Your task to perform on an android device: change the clock display to analog Image 0: 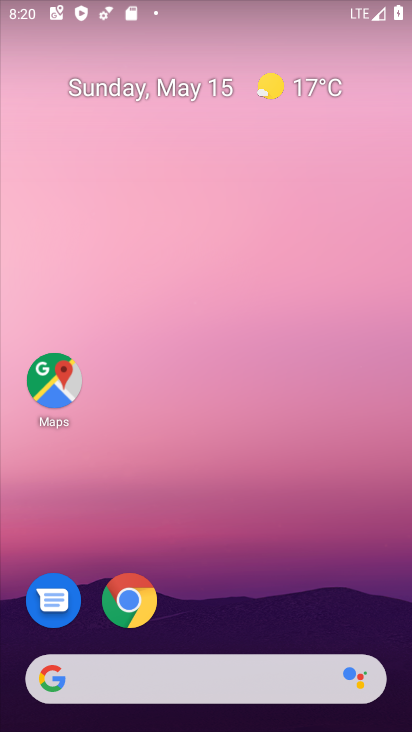
Step 0: drag from (256, 609) to (217, 154)
Your task to perform on an android device: change the clock display to analog Image 1: 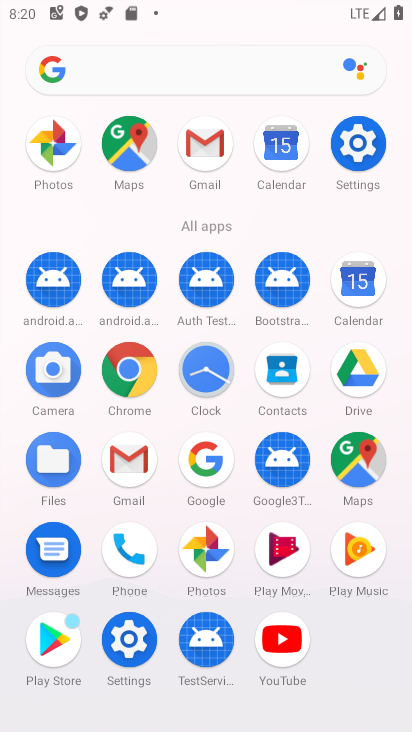
Step 1: click (206, 368)
Your task to perform on an android device: change the clock display to analog Image 2: 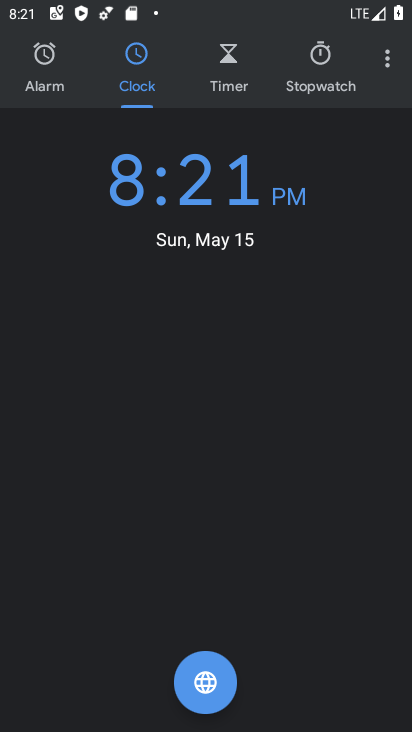
Step 2: click (389, 60)
Your task to perform on an android device: change the clock display to analog Image 3: 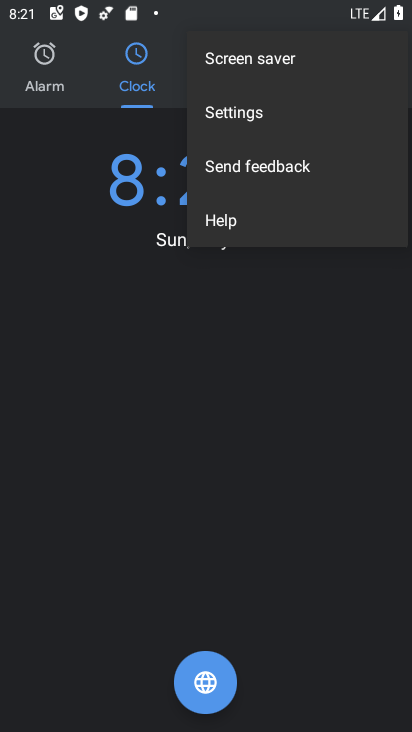
Step 3: click (249, 111)
Your task to perform on an android device: change the clock display to analog Image 4: 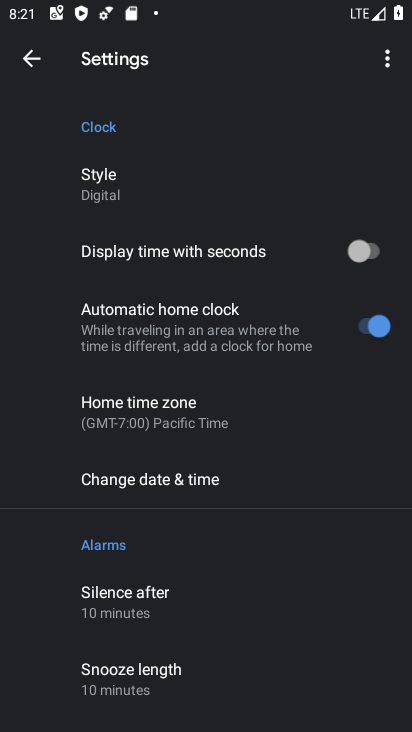
Step 4: click (108, 186)
Your task to perform on an android device: change the clock display to analog Image 5: 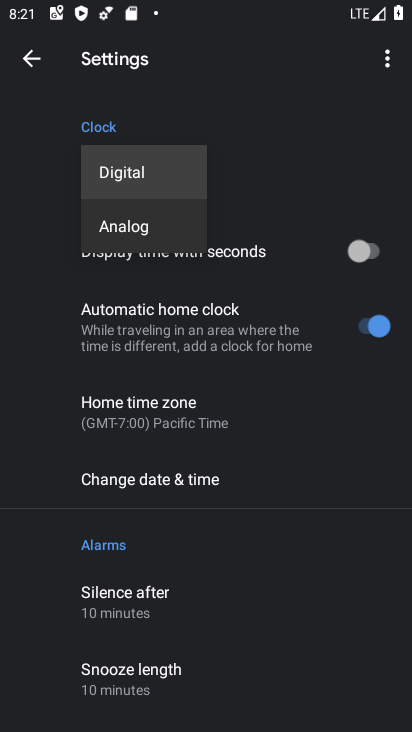
Step 5: click (153, 230)
Your task to perform on an android device: change the clock display to analog Image 6: 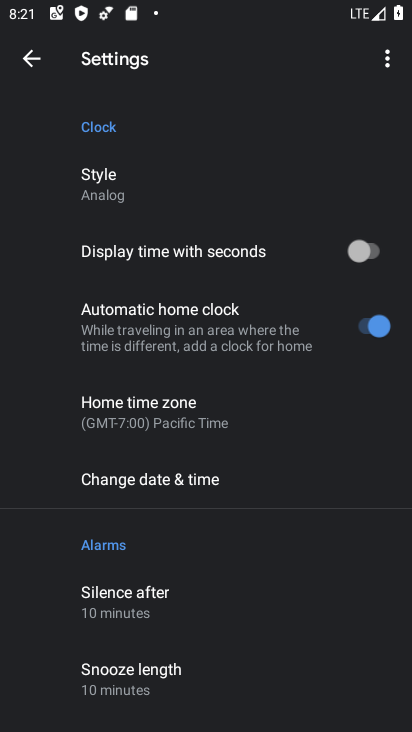
Step 6: task complete